Your task to perform on an android device: stop showing notifications on the lock screen Image 0: 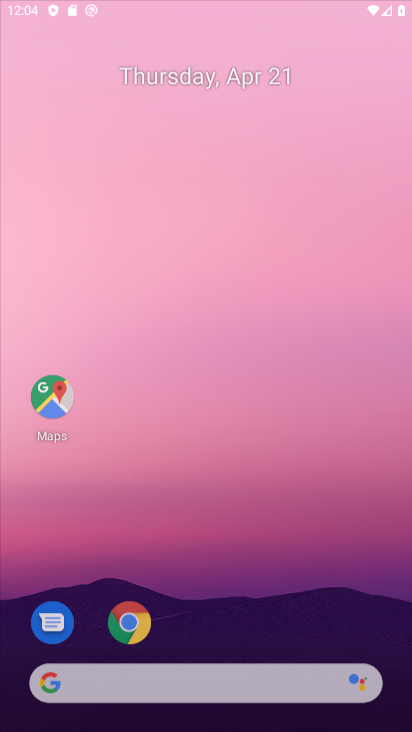
Step 0: drag from (361, 416) to (404, 81)
Your task to perform on an android device: stop showing notifications on the lock screen Image 1: 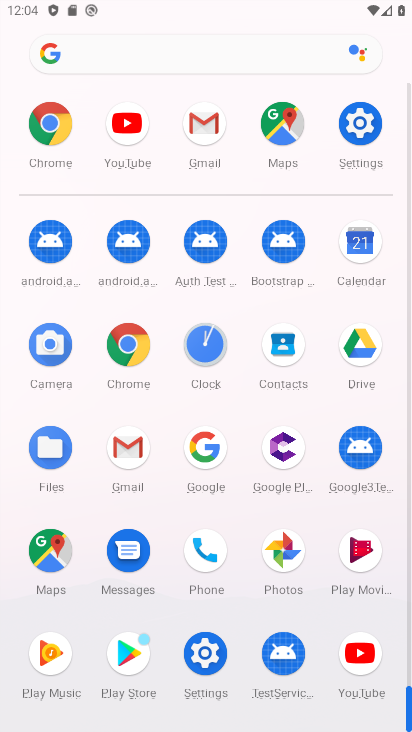
Step 1: click (362, 116)
Your task to perform on an android device: stop showing notifications on the lock screen Image 2: 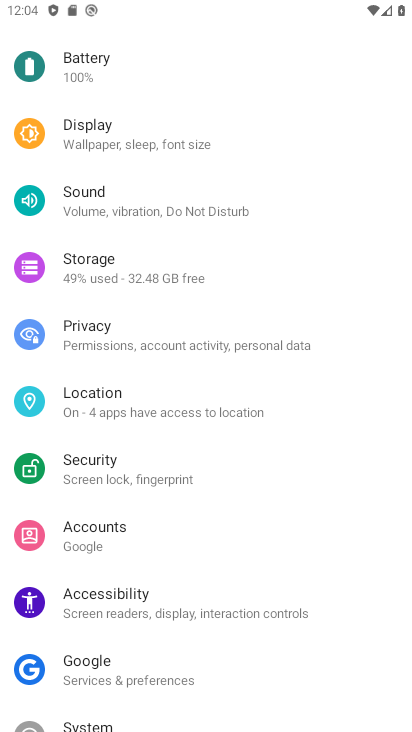
Step 2: drag from (214, 201) to (160, 532)
Your task to perform on an android device: stop showing notifications on the lock screen Image 3: 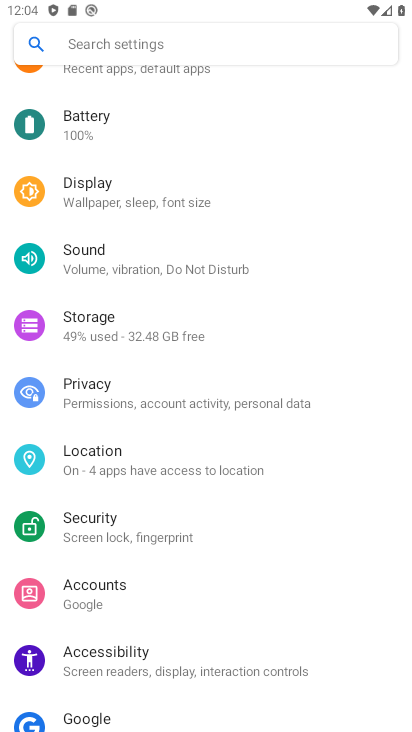
Step 3: drag from (284, 243) to (197, 655)
Your task to perform on an android device: stop showing notifications on the lock screen Image 4: 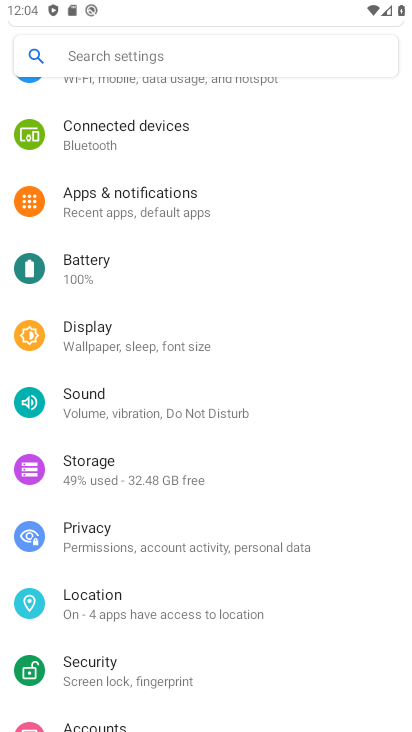
Step 4: drag from (305, 198) to (215, 655)
Your task to perform on an android device: stop showing notifications on the lock screen Image 5: 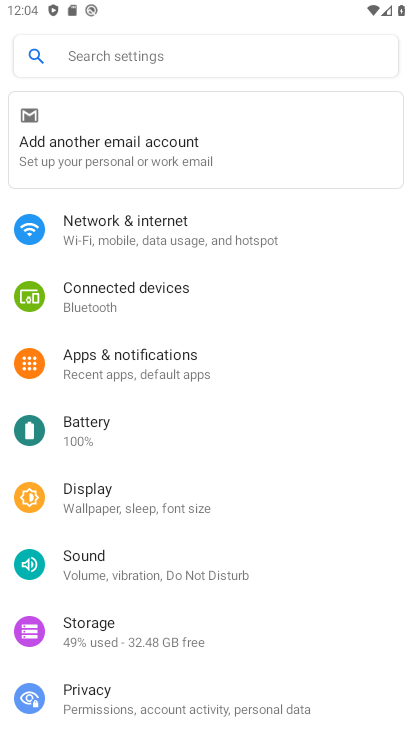
Step 5: click (174, 377)
Your task to perform on an android device: stop showing notifications on the lock screen Image 6: 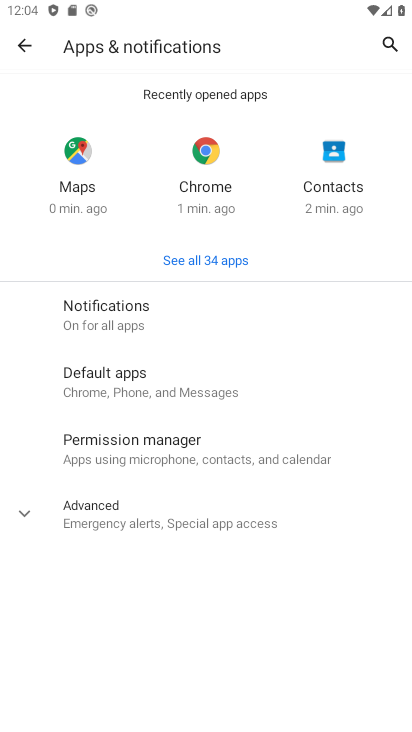
Step 6: click (104, 320)
Your task to perform on an android device: stop showing notifications on the lock screen Image 7: 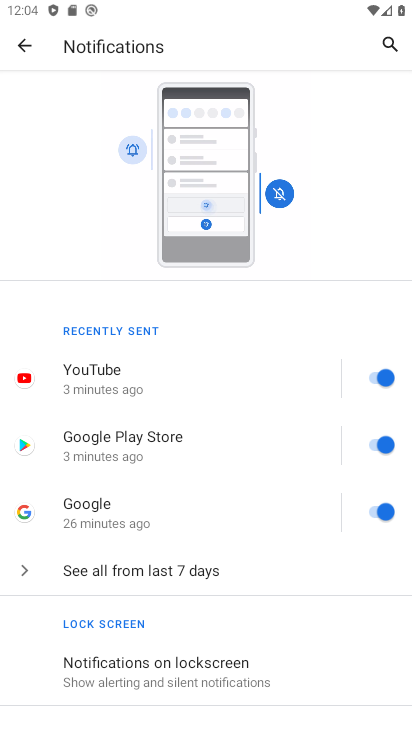
Step 7: drag from (219, 573) to (270, 202)
Your task to perform on an android device: stop showing notifications on the lock screen Image 8: 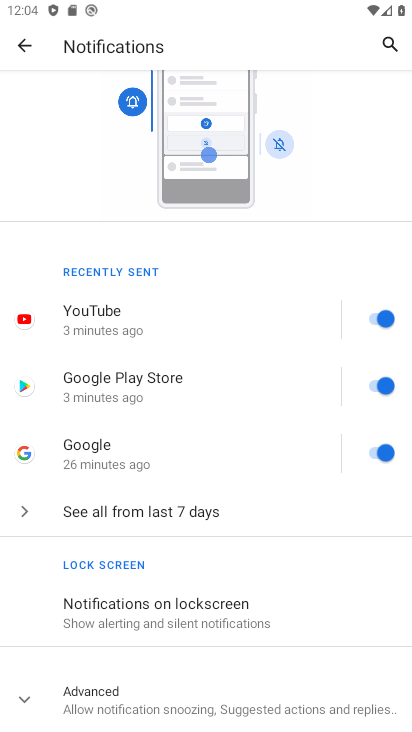
Step 8: click (141, 609)
Your task to perform on an android device: stop showing notifications on the lock screen Image 9: 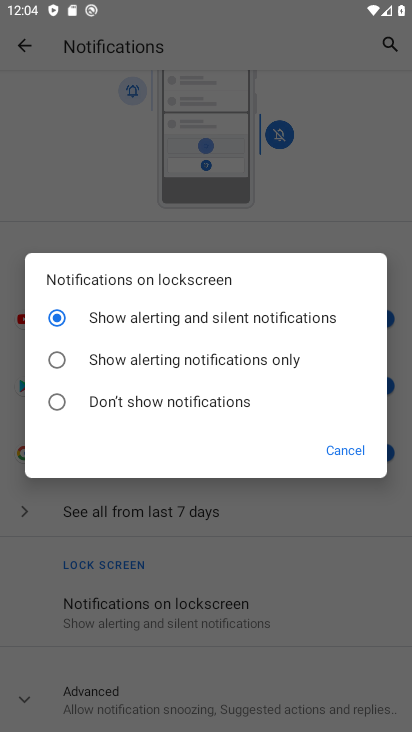
Step 9: click (68, 403)
Your task to perform on an android device: stop showing notifications on the lock screen Image 10: 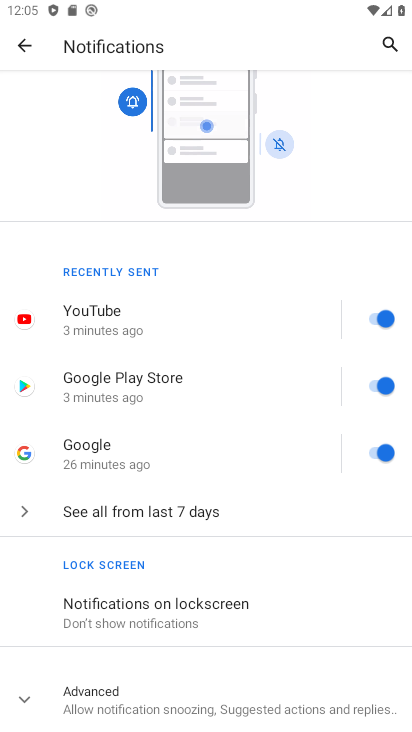
Step 10: task complete